Your task to perform on an android device: Go to Amazon Image 0: 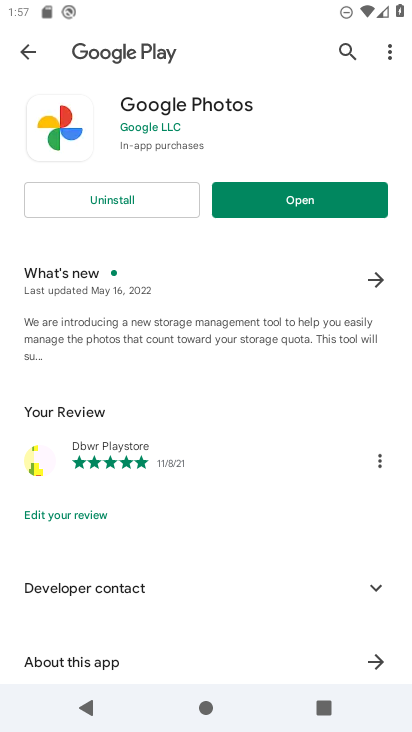
Step 0: press home button
Your task to perform on an android device: Go to Amazon Image 1: 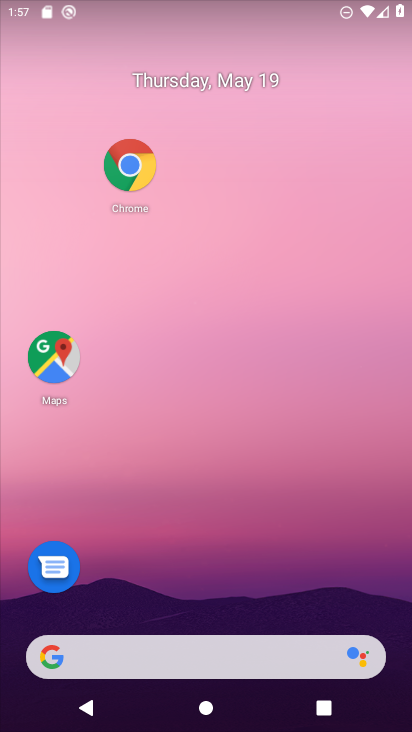
Step 1: click (134, 158)
Your task to perform on an android device: Go to Amazon Image 2: 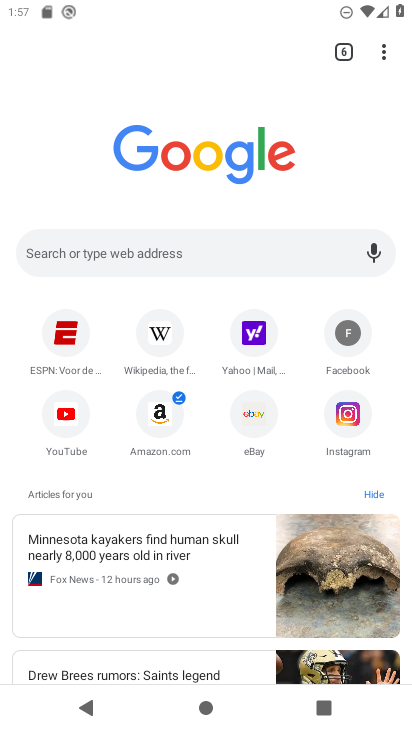
Step 2: click (336, 49)
Your task to perform on an android device: Go to Amazon Image 3: 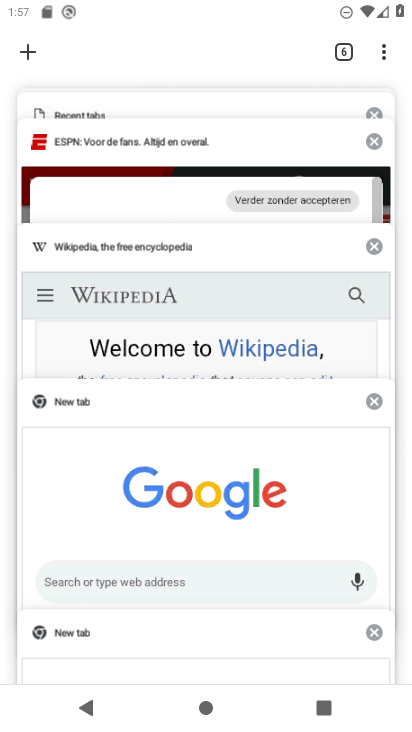
Step 3: drag from (176, 147) to (172, 534)
Your task to perform on an android device: Go to Amazon Image 4: 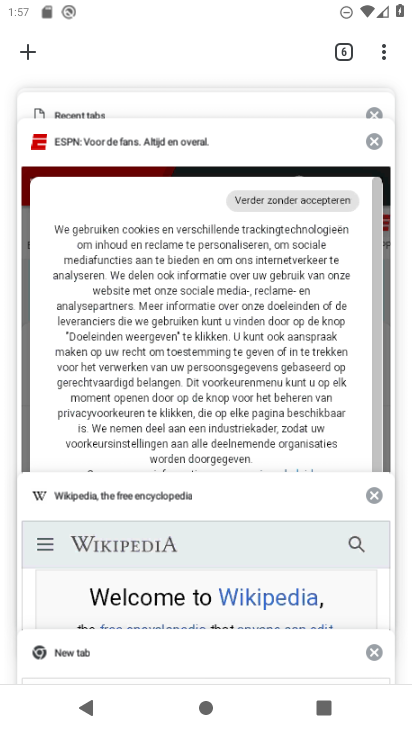
Step 4: drag from (237, 200) to (241, 508)
Your task to perform on an android device: Go to Amazon Image 5: 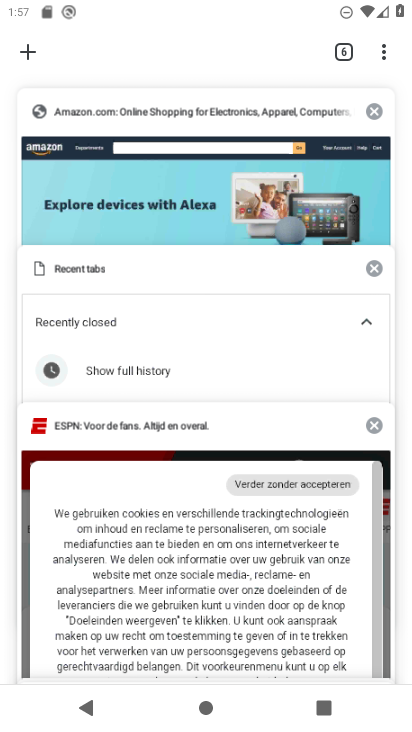
Step 5: drag from (231, 100) to (252, 449)
Your task to perform on an android device: Go to Amazon Image 6: 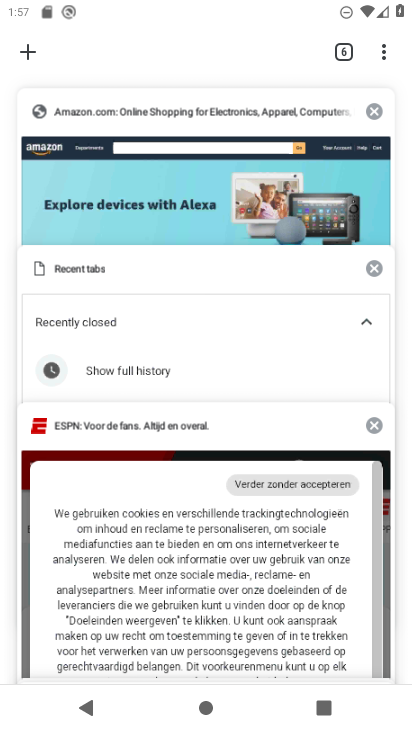
Step 6: click (211, 159)
Your task to perform on an android device: Go to Amazon Image 7: 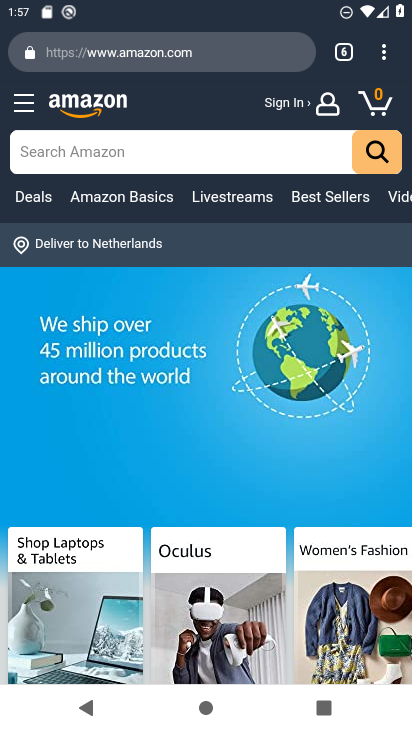
Step 7: task complete